Your task to perform on an android device: toggle location history Image 0: 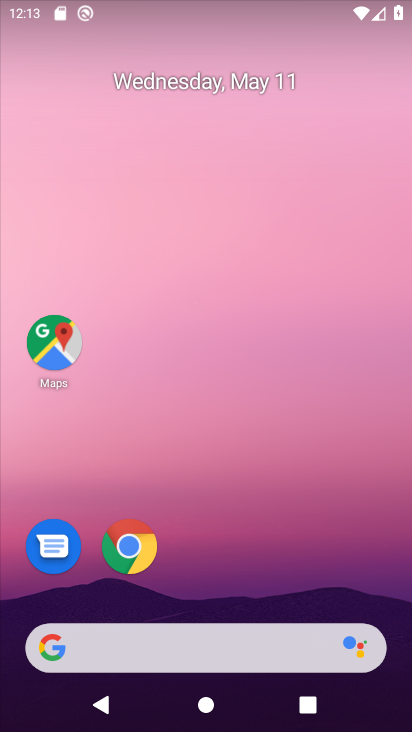
Step 0: click (243, 339)
Your task to perform on an android device: toggle location history Image 1: 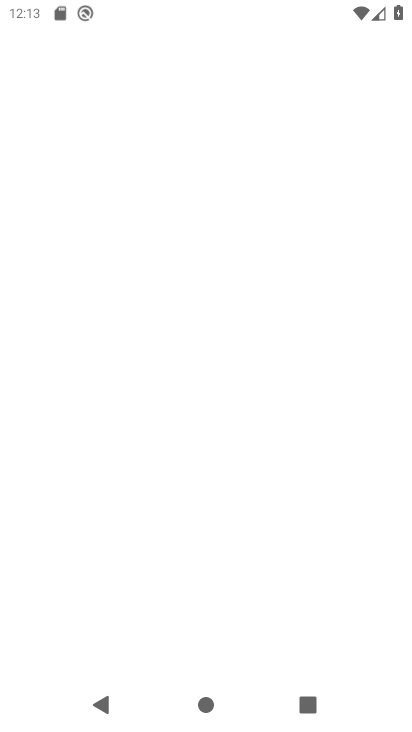
Step 1: drag from (257, 597) to (267, 342)
Your task to perform on an android device: toggle location history Image 2: 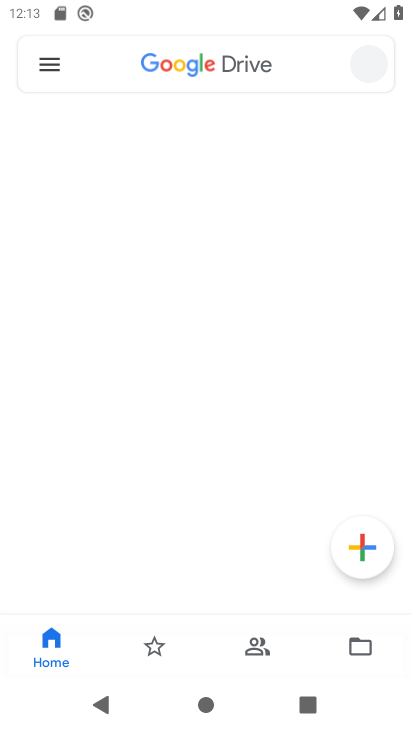
Step 2: press home button
Your task to perform on an android device: toggle location history Image 3: 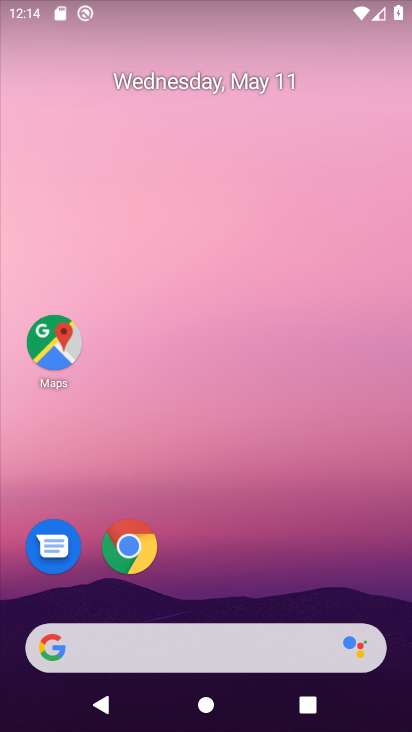
Step 3: drag from (214, 516) to (209, 306)
Your task to perform on an android device: toggle location history Image 4: 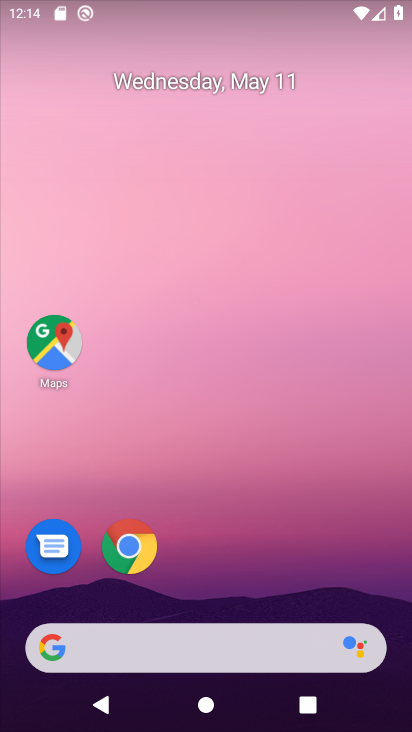
Step 4: drag from (251, 521) to (249, 283)
Your task to perform on an android device: toggle location history Image 5: 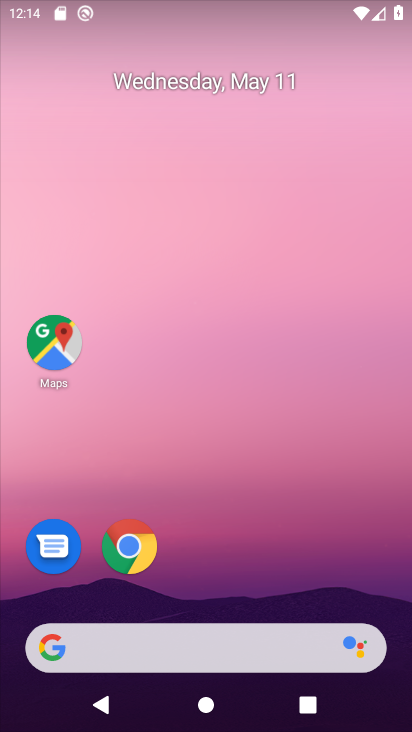
Step 5: drag from (235, 388) to (245, 211)
Your task to perform on an android device: toggle location history Image 6: 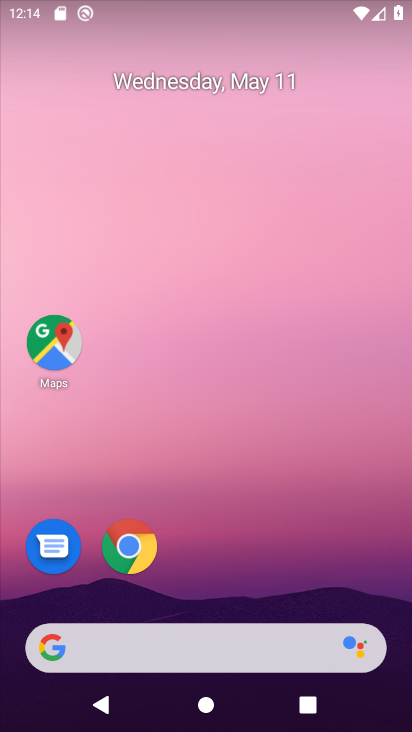
Step 6: click (43, 341)
Your task to perform on an android device: toggle location history Image 7: 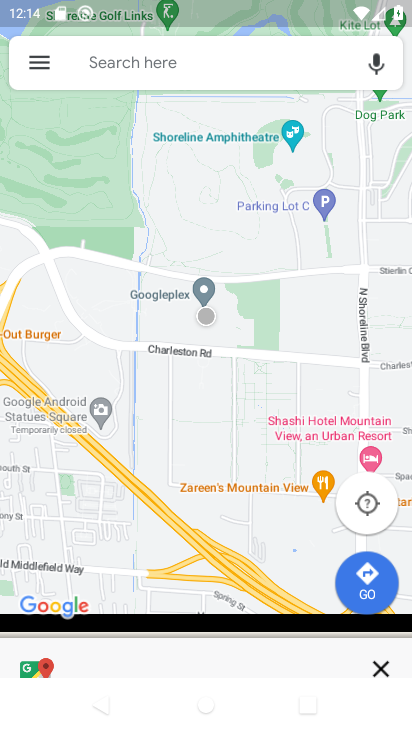
Step 7: click (33, 60)
Your task to perform on an android device: toggle location history Image 8: 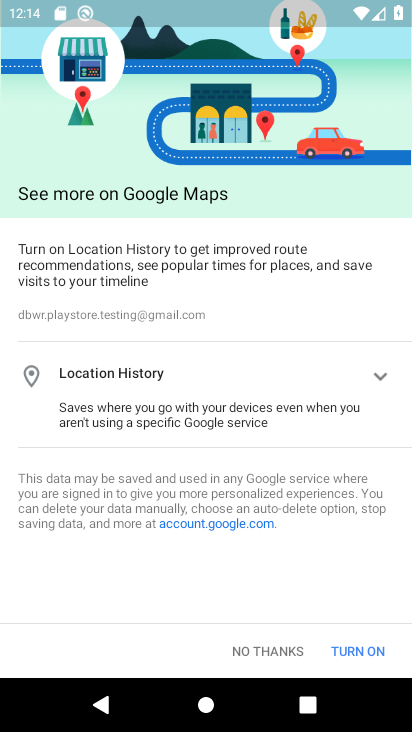
Step 8: click (287, 647)
Your task to perform on an android device: toggle location history Image 9: 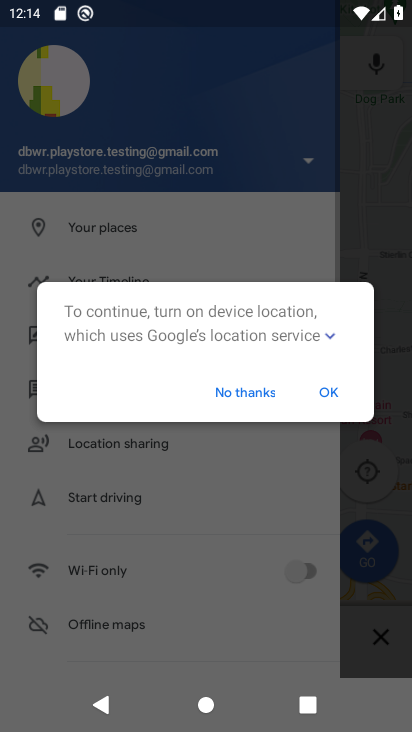
Step 9: click (323, 393)
Your task to perform on an android device: toggle location history Image 10: 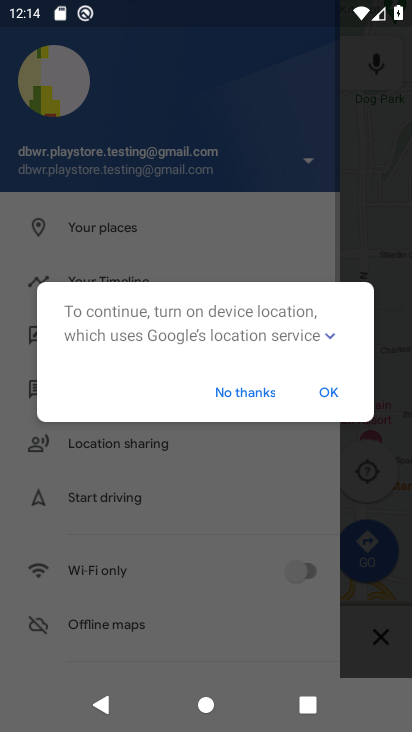
Step 10: click (329, 385)
Your task to perform on an android device: toggle location history Image 11: 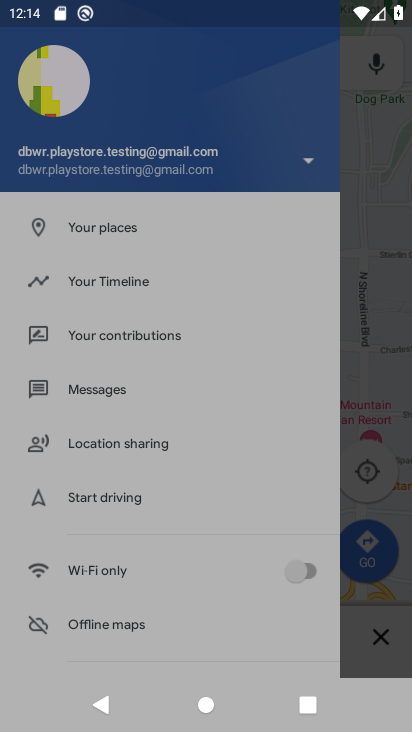
Step 11: click (323, 390)
Your task to perform on an android device: toggle location history Image 12: 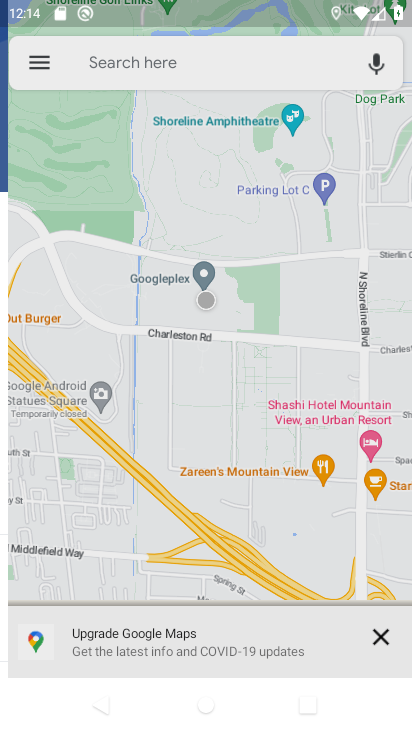
Step 12: click (95, 287)
Your task to perform on an android device: toggle location history Image 13: 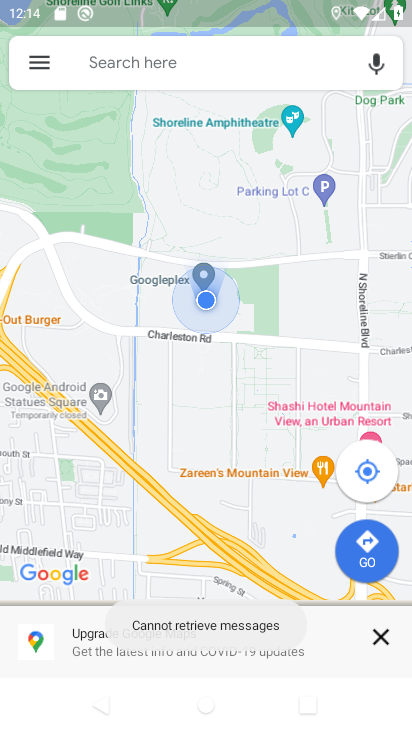
Step 13: click (24, 59)
Your task to perform on an android device: toggle location history Image 14: 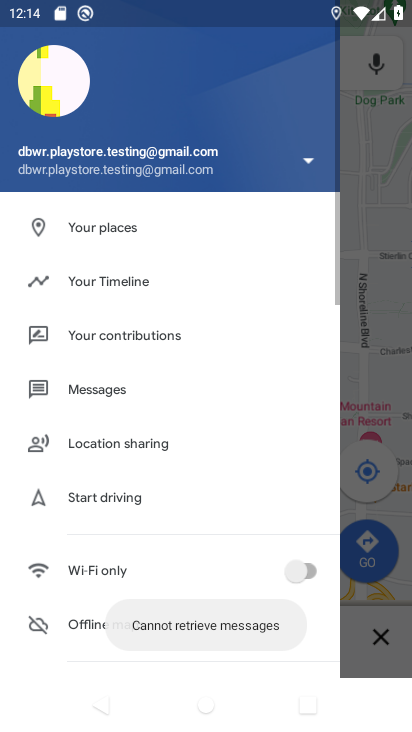
Step 14: click (122, 280)
Your task to perform on an android device: toggle location history Image 15: 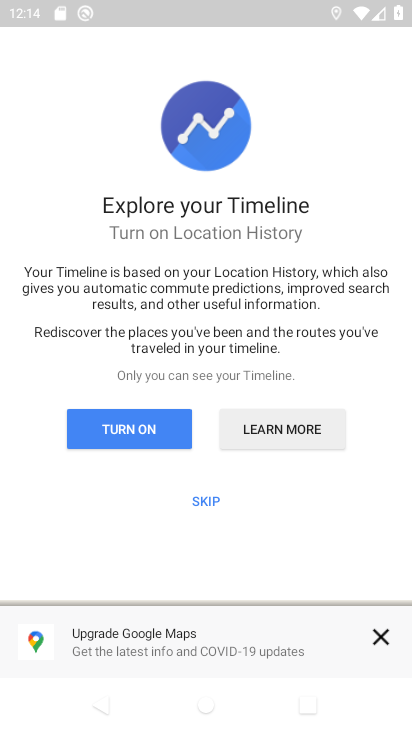
Step 15: click (207, 495)
Your task to perform on an android device: toggle location history Image 16: 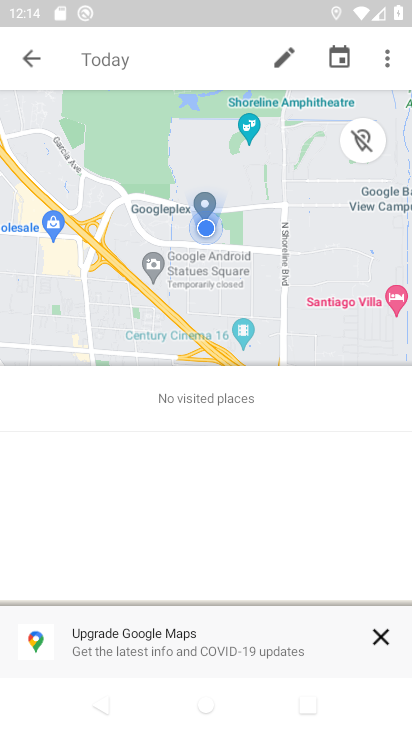
Step 16: click (378, 51)
Your task to perform on an android device: toggle location history Image 17: 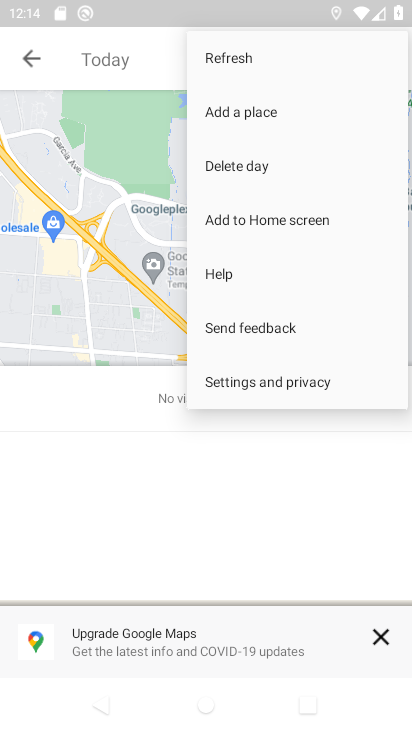
Step 17: click (274, 385)
Your task to perform on an android device: toggle location history Image 18: 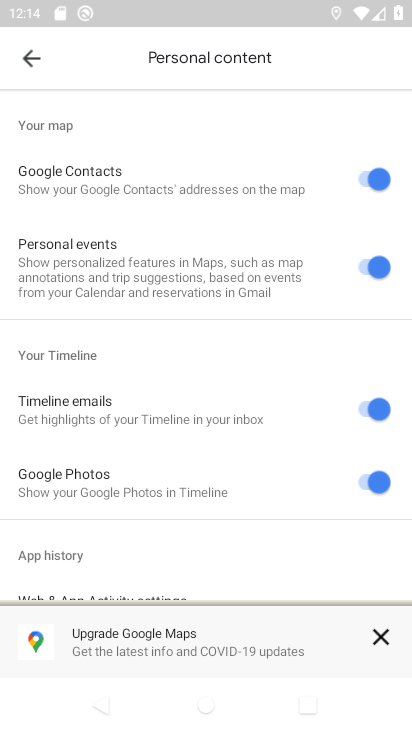
Step 18: click (384, 631)
Your task to perform on an android device: toggle location history Image 19: 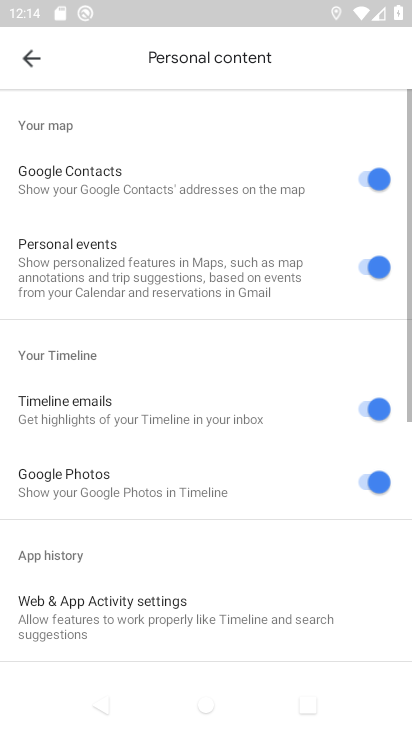
Step 19: drag from (207, 597) to (258, 164)
Your task to perform on an android device: toggle location history Image 20: 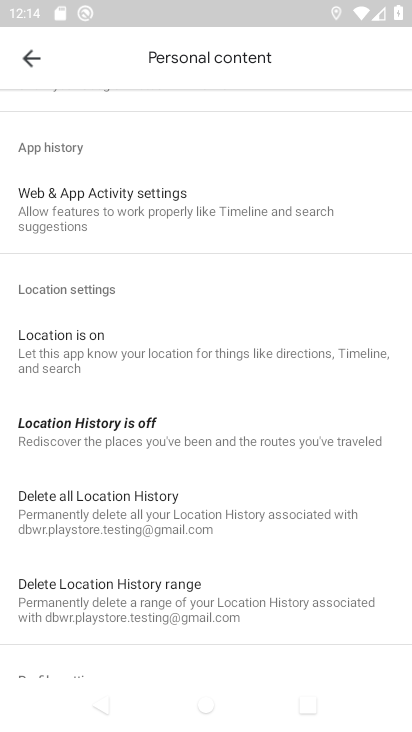
Step 20: drag from (185, 585) to (215, 474)
Your task to perform on an android device: toggle location history Image 21: 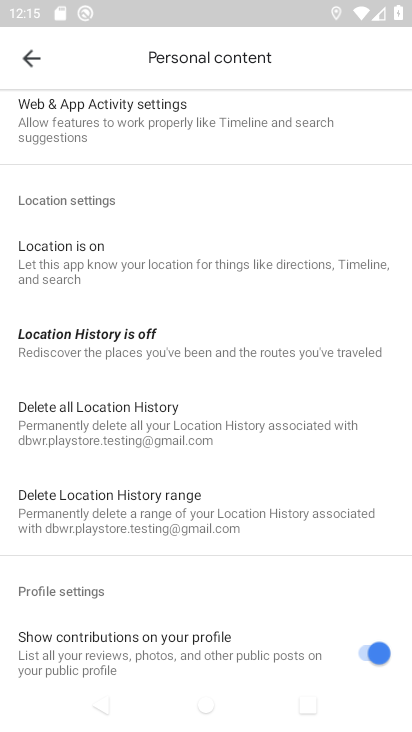
Step 21: click (141, 344)
Your task to perform on an android device: toggle location history Image 22: 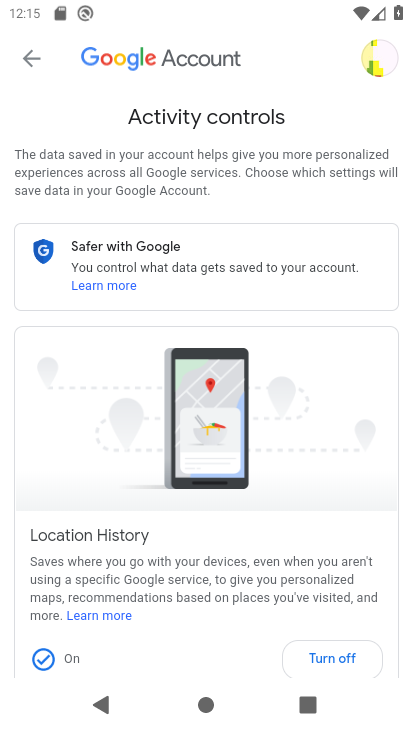
Step 22: click (324, 647)
Your task to perform on an android device: toggle location history Image 23: 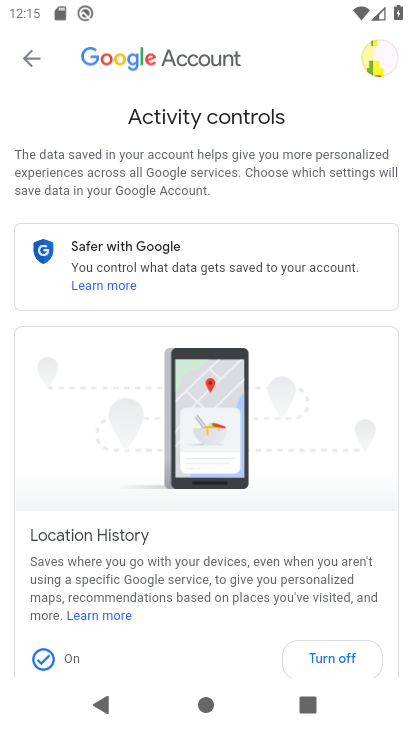
Step 23: task complete